Your task to perform on an android device: toggle show notifications on the lock screen Image 0: 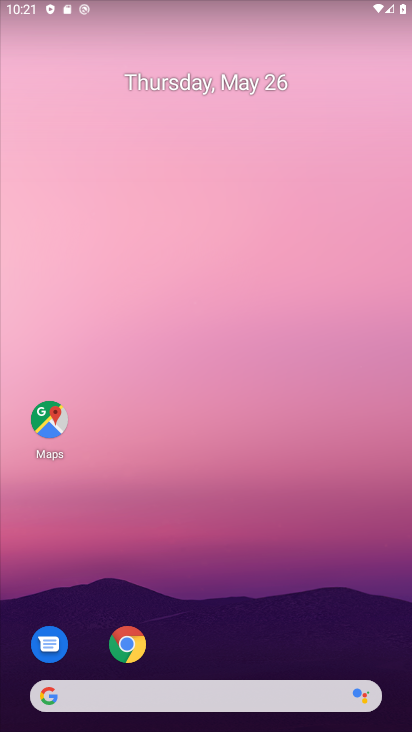
Step 0: drag from (215, 677) to (379, 50)
Your task to perform on an android device: toggle show notifications on the lock screen Image 1: 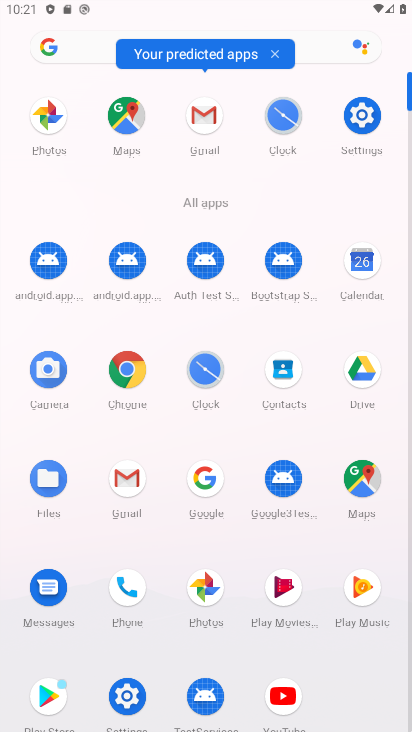
Step 1: click (129, 710)
Your task to perform on an android device: toggle show notifications on the lock screen Image 2: 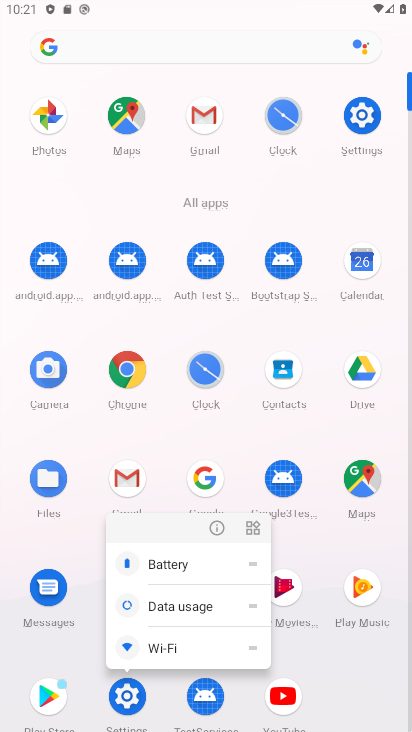
Step 2: click (129, 707)
Your task to perform on an android device: toggle show notifications on the lock screen Image 3: 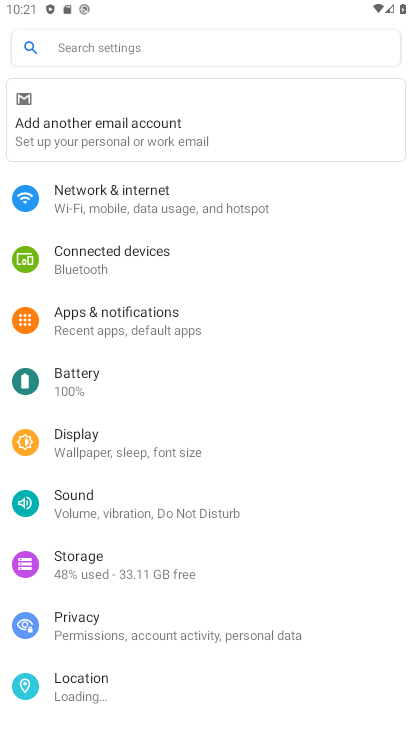
Step 3: click (110, 314)
Your task to perform on an android device: toggle show notifications on the lock screen Image 4: 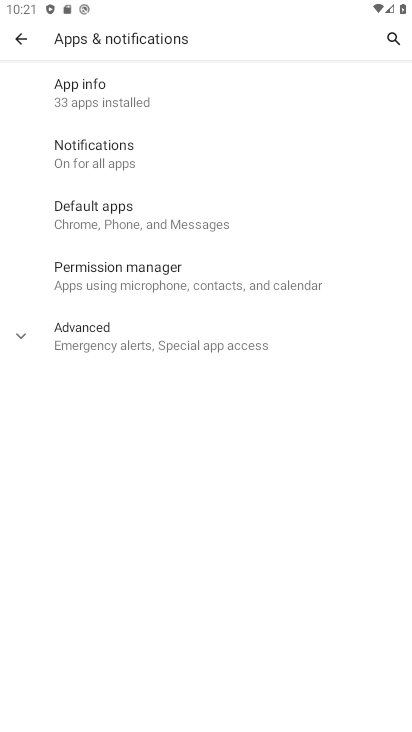
Step 4: click (130, 170)
Your task to perform on an android device: toggle show notifications on the lock screen Image 5: 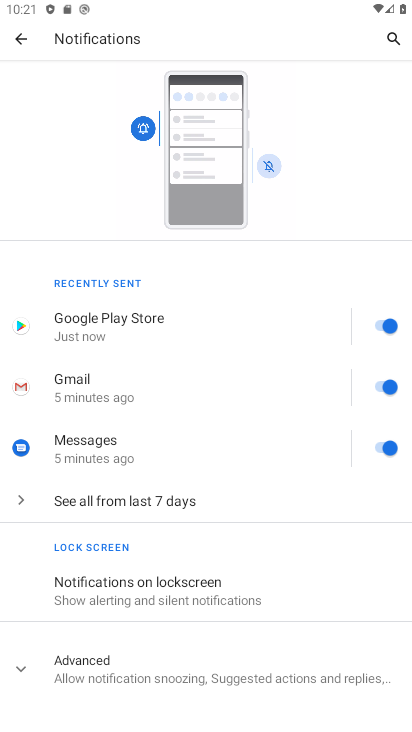
Step 5: click (191, 605)
Your task to perform on an android device: toggle show notifications on the lock screen Image 6: 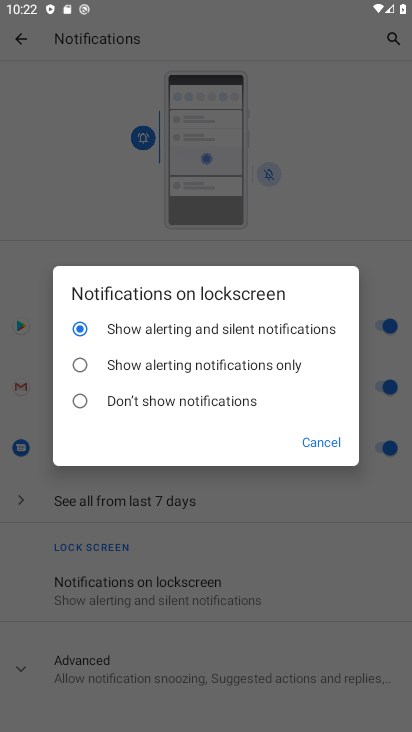
Step 6: click (178, 404)
Your task to perform on an android device: toggle show notifications on the lock screen Image 7: 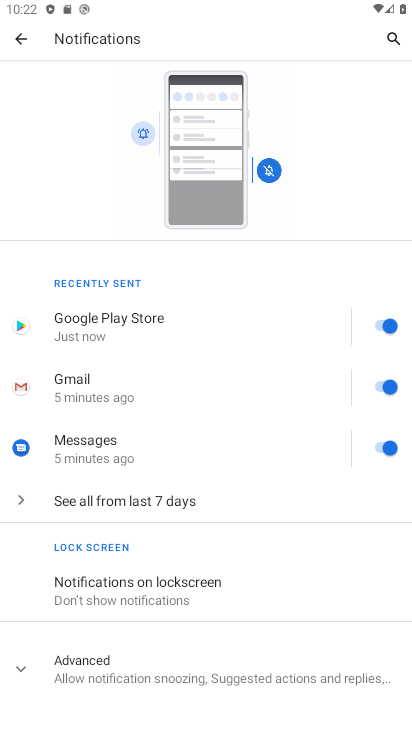
Step 7: task complete